Your task to perform on an android device: Open maps Image 0: 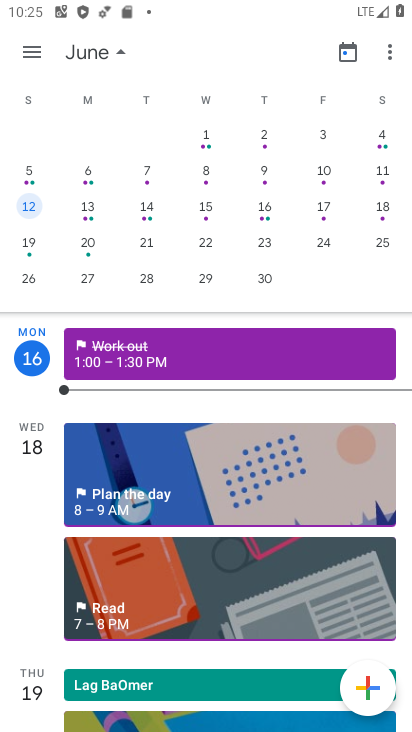
Step 0: press home button
Your task to perform on an android device: Open maps Image 1: 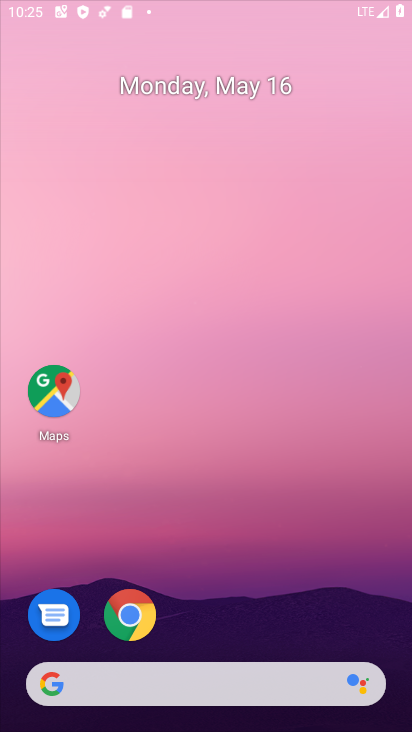
Step 1: drag from (201, 620) to (267, 56)
Your task to perform on an android device: Open maps Image 2: 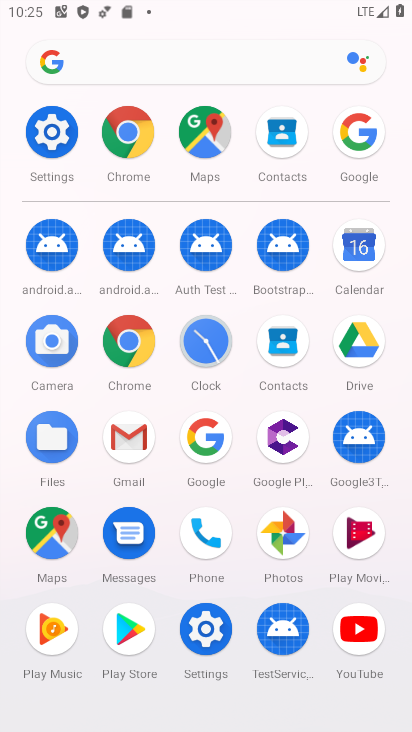
Step 2: click (217, 154)
Your task to perform on an android device: Open maps Image 3: 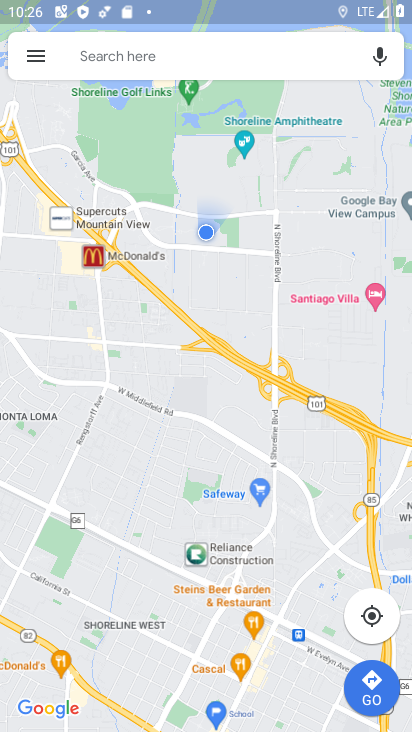
Step 3: task complete